Your task to perform on an android device: turn off sleep mode Image 0: 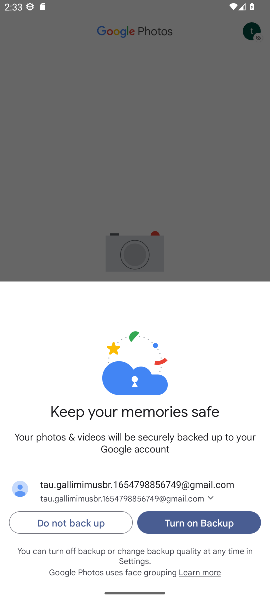
Step 0: press home button
Your task to perform on an android device: turn off sleep mode Image 1: 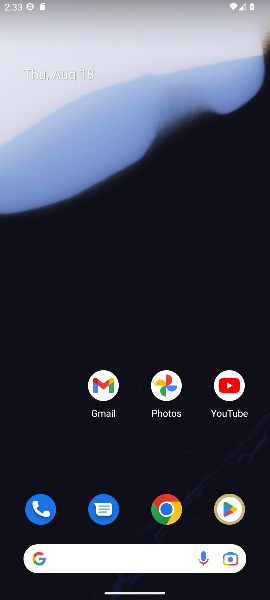
Step 1: drag from (131, 513) to (164, 131)
Your task to perform on an android device: turn off sleep mode Image 2: 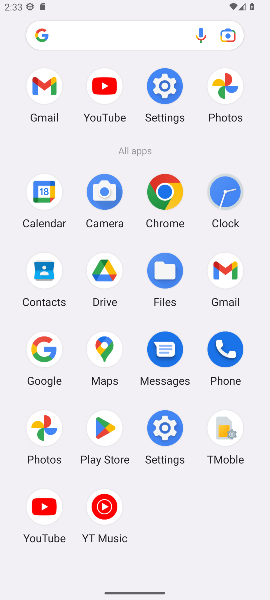
Step 2: click (161, 85)
Your task to perform on an android device: turn off sleep mode Image 3: 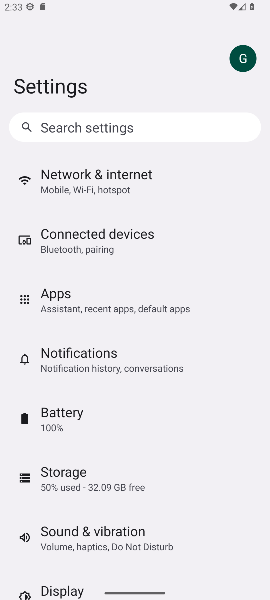
Step 3: task complete